Your task to perform on an android device: Show me the alarms in the clock app Image 0: 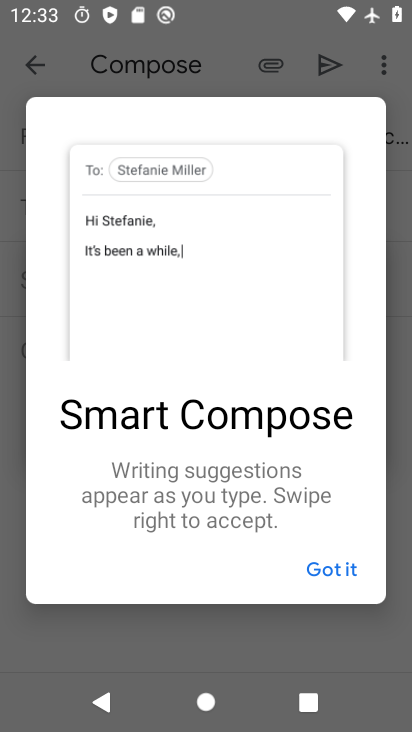
Step 0: press home button
Your task to perform on an android device: Show me the alarms in the clock app Image 1: 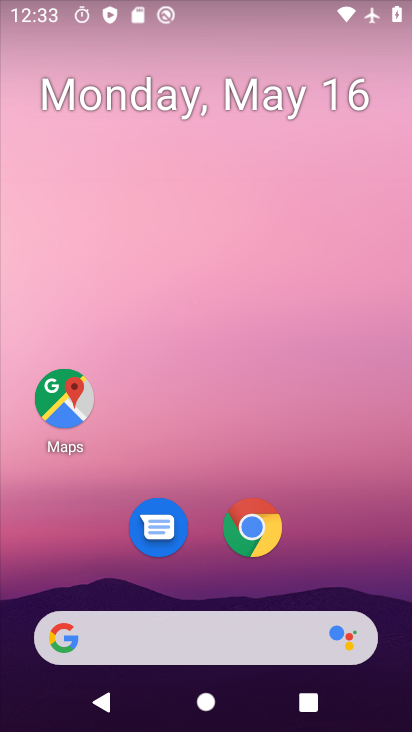
Step 1: drag from (215, 637) to (381, 120)
Your task to perform on an android device: Show me the alarms in the clock app Image 2: 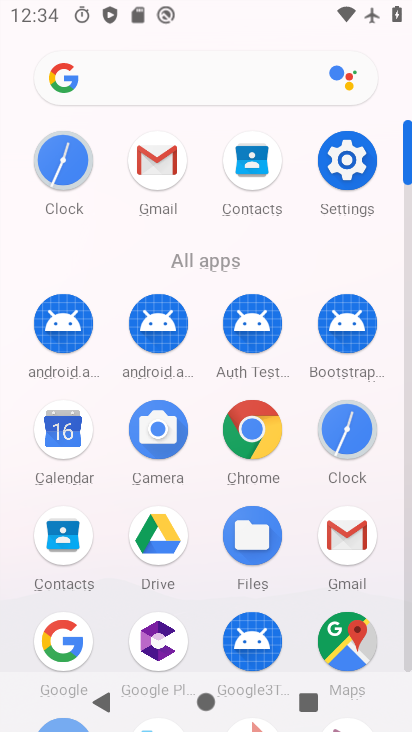
Step 2: click (345, 434)
Your task to perform on an android device: Show me the alarms in the clock app Image 3: 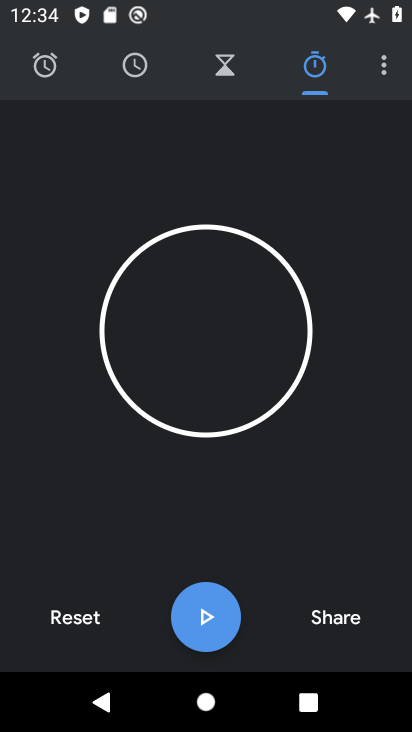
Step 3: click (47, 68)
Your task to perform on an android device: Show me the alarms in the clock app Image 4: 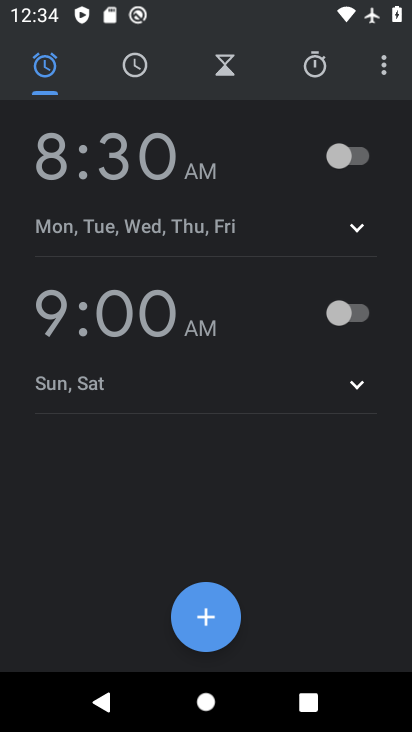
Step 4: task complete